Your task to perform on an android device: turn on bluetooth scan Image 0: 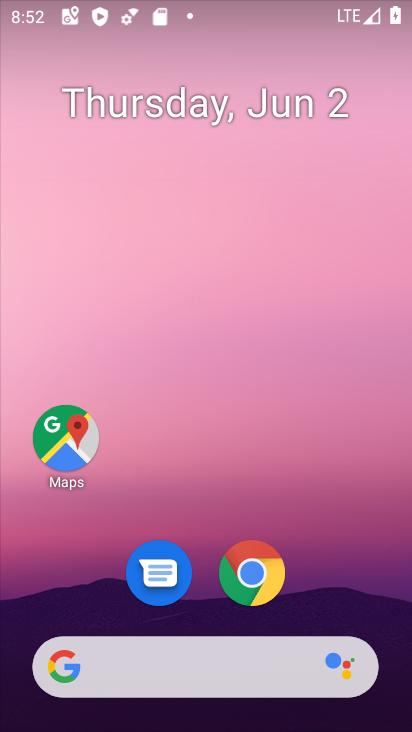
Step 0: press home button
Your task to perform on an android device: turn on bluetooth scan Image 1: 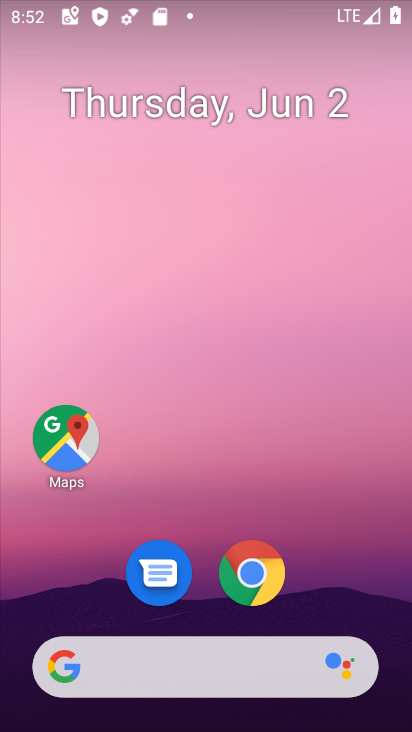
Step 1: drag from (367, 574) to (225, 12)
Your task to perform on an android device: turn on bluetooth scan Image 2: 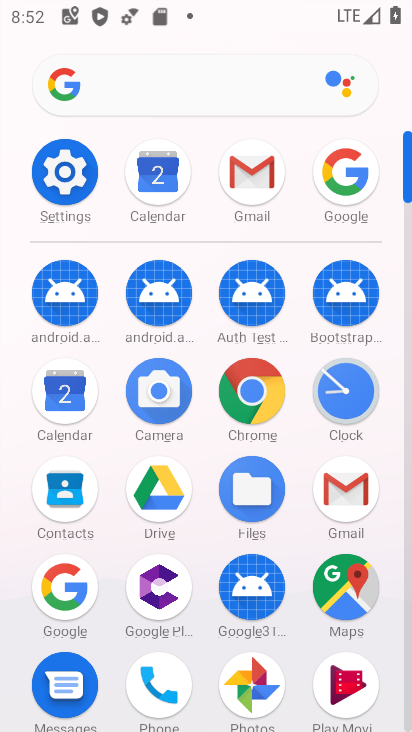
Step 2: click (47, 172)
Your task to perform on an android device: turn on bluetooth scan Image 3: 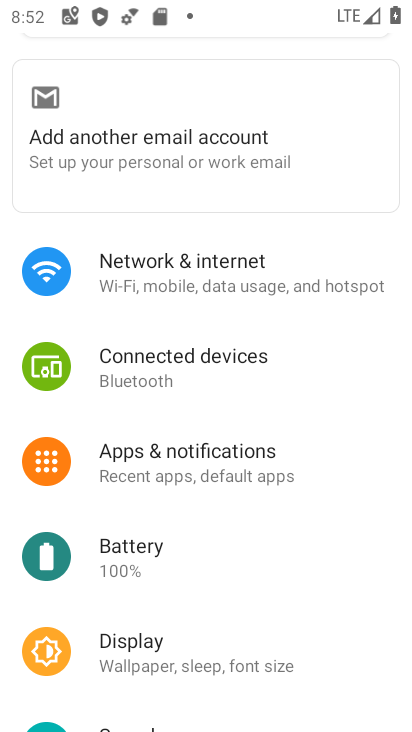
Step 3: drag from (300, 3) to (406, 54)
Your task to perform on an android device: turn on bluetooth scan Image 4: 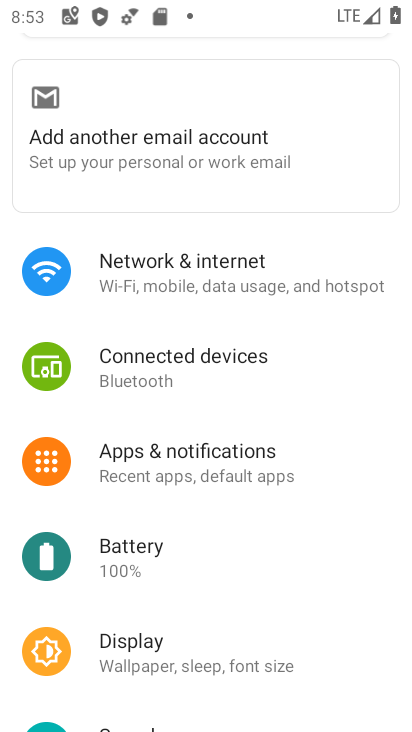
Step 4: drag from (260, 597) to (109, 32)
Your task to perform on an android device: turn on bluetooth scan Image 5: 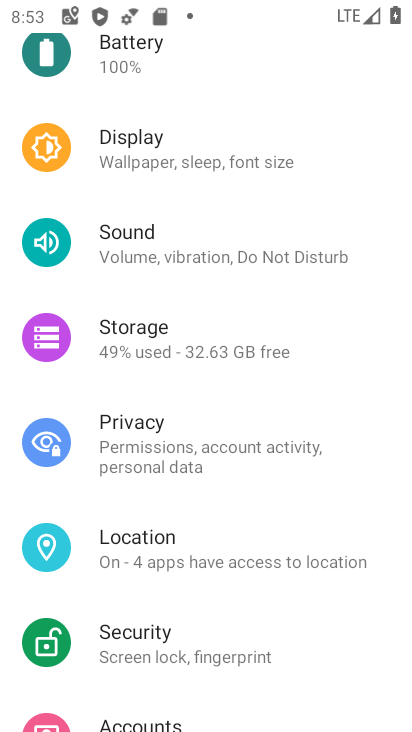
Step 5: drag from (256, 499) to (177, 12)
Your task to perform on an android device: turn on bluetooth scan Image 6: 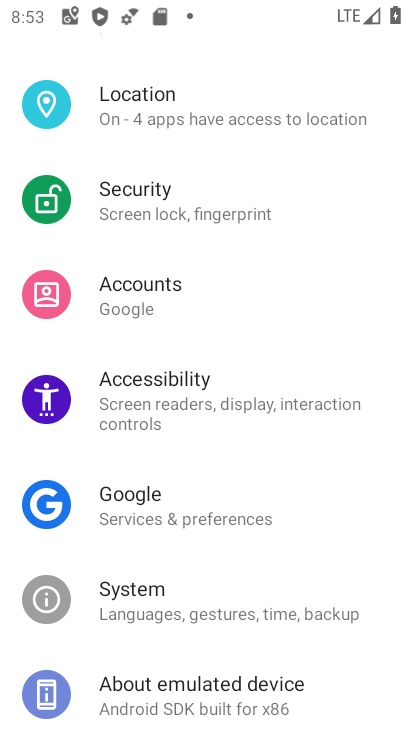
Step 6: drag from (218, 512) to (150, 0)
Your task to perform on an android device: turn on bluetooth scan Image 7: 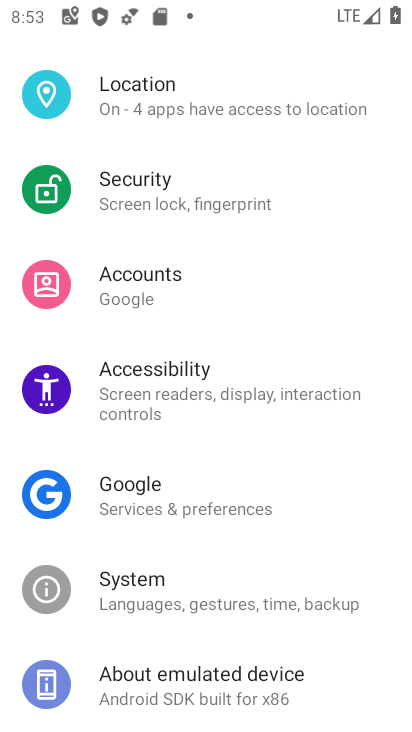
Step 7: click (241, 99)
Your task to perform on an android device: turn on bluetooth scan Image 8: 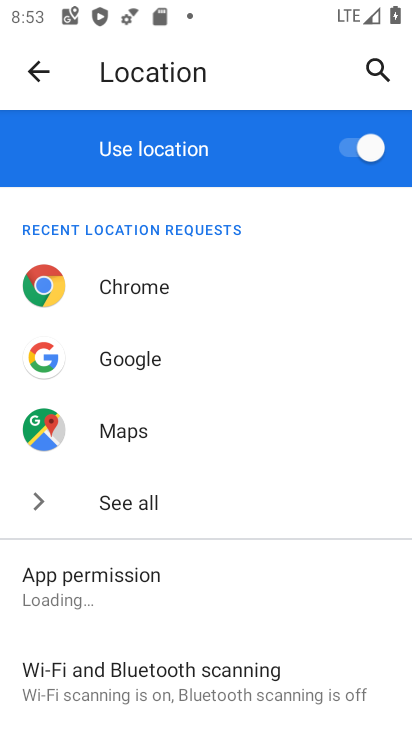
Step 8: drag from (328, 557) to (215, 0)
Your task to perform on an android device: turn on bluetooth scan Image 9: 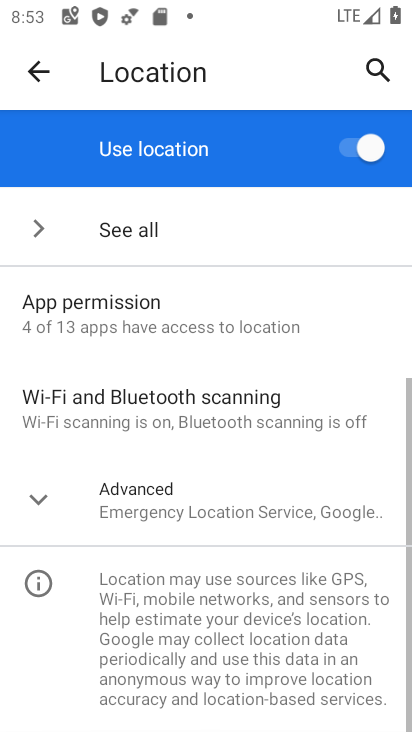
Step 9: click (212, 397)
Your task to perform on an android device: turn on bluetooth scan Image 10: 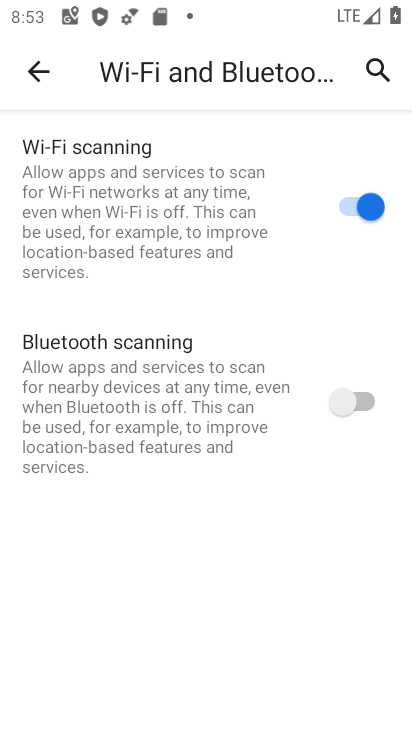
Step 10: click (212, 397)
Your task to perform on an android device: turn on bluetooth scan Image 11: 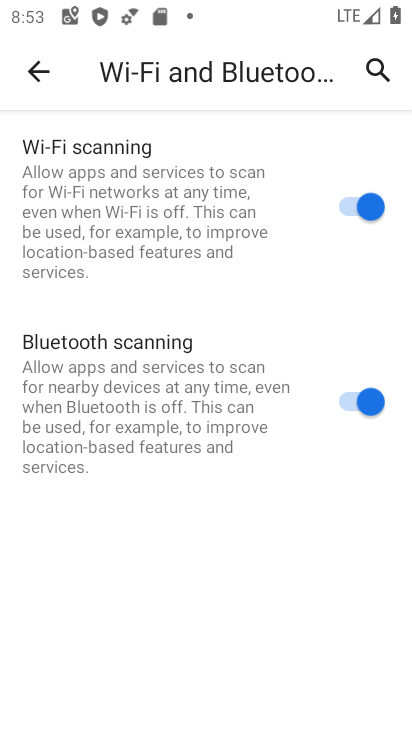
Step 11: task complete